Your task to perform on an android device: choose inbox layout in the gmail app Image 0: 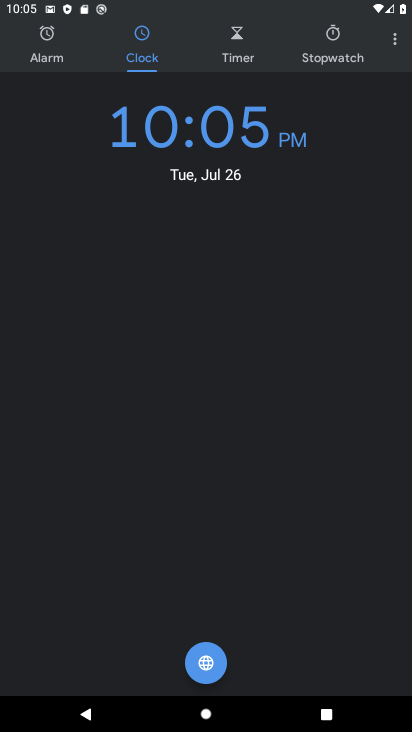
Step 0: press home button
Your task to perform on an android device: choose inbox layout in the gmail app Image 1: 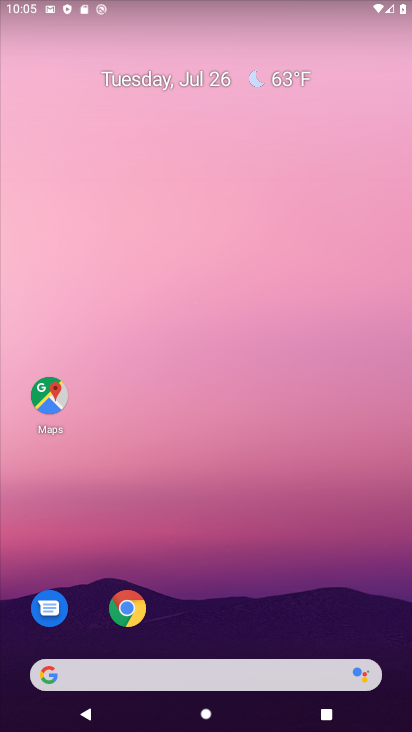
Step 1: press home button
Your task to perform on an android device: choose inbox layout in the gmail app Image 2: 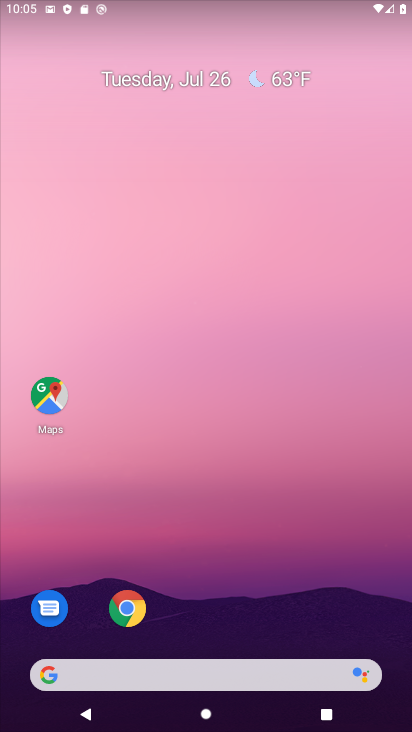
Step 2: drag from (270, 640) to (176, 113)
Your task to perform on an android device: choose inbox layout in the gmail app Image 3: 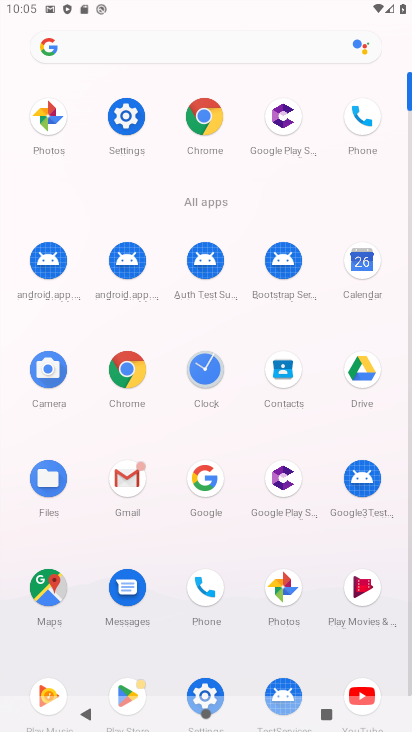
Step 3: click (130, 491)
Your task to perform on an android device: choose inbox layout in the gmail app Image 4: 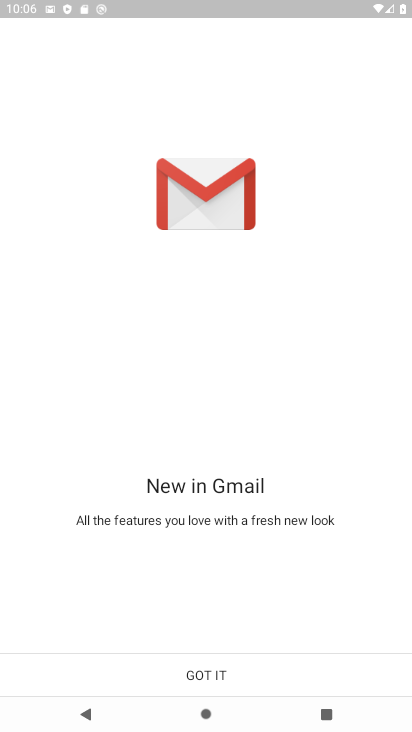
Step 4: click (229, 681)
Your task to perform on an android device: choose inbox layout in the gmail app Image 5: 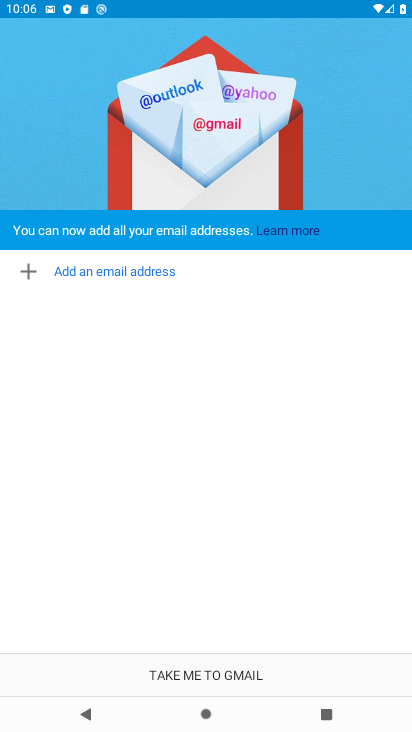
Step 5: click (229, 681)
Your task to perform on an android device: choose inbox layout in the gmail app Image 6: 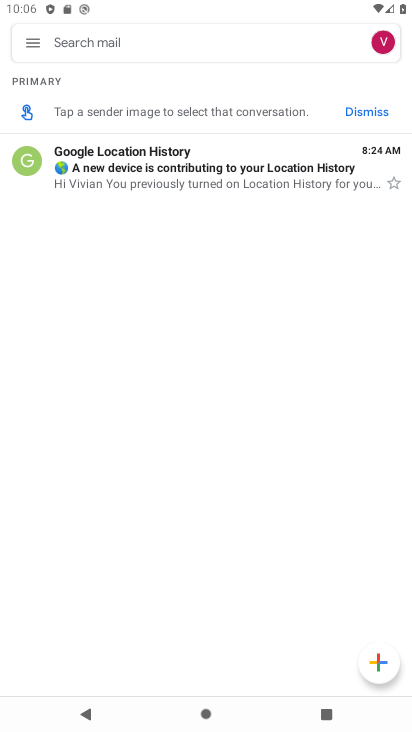
Step 6: click (30, 43)
Your task to perform on an android device: choose inbox layout in the gmail app Image 7: 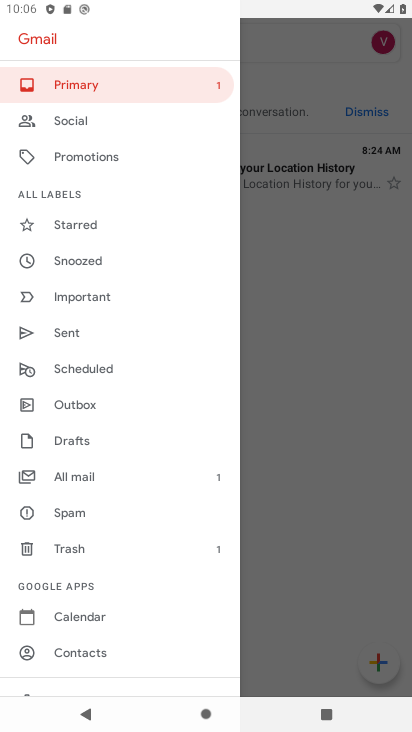
Step 7: drag from (135, 591) to (163, 334)
Your task to perform on an android device: choose inbox layout in the gmail app Image 8: 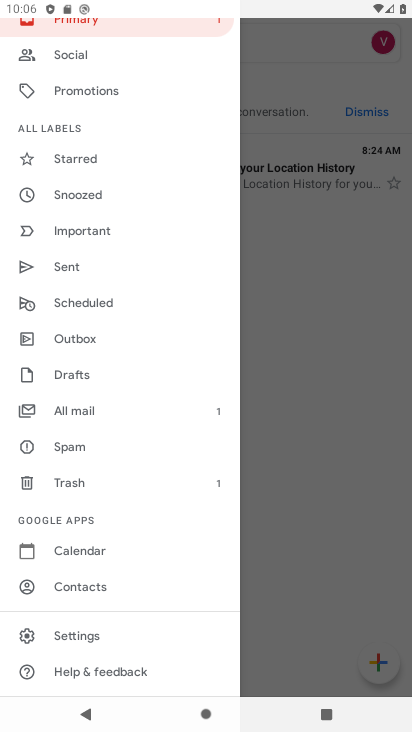
Step 8: click (68, 633)
Your task to perform on an android device: choose inbox layout in the gmail app Image 9: 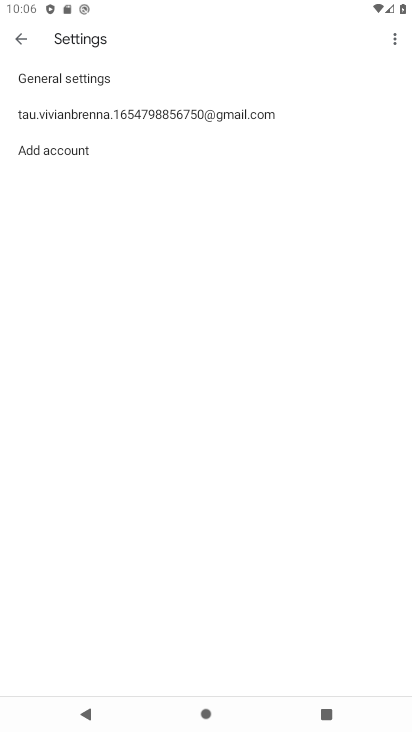
Step 9: click (92, 102)
Your task to perform on an android device: choose inbox layout in the gmail app Image 10: 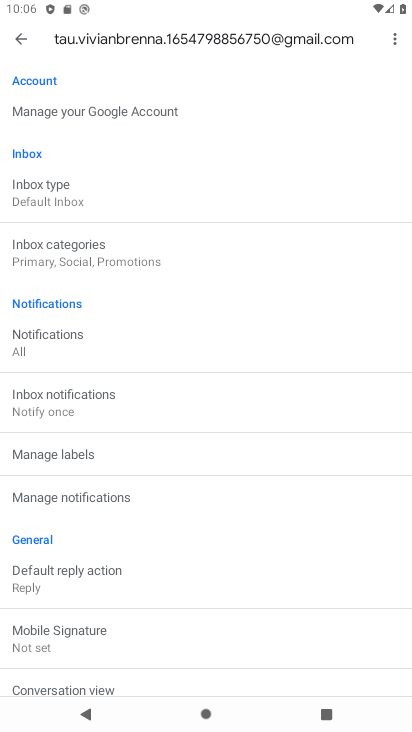
Step 10: click (13, 190)
Your task to perform on an android device: choose inbox layout in the gmail app Image 11: 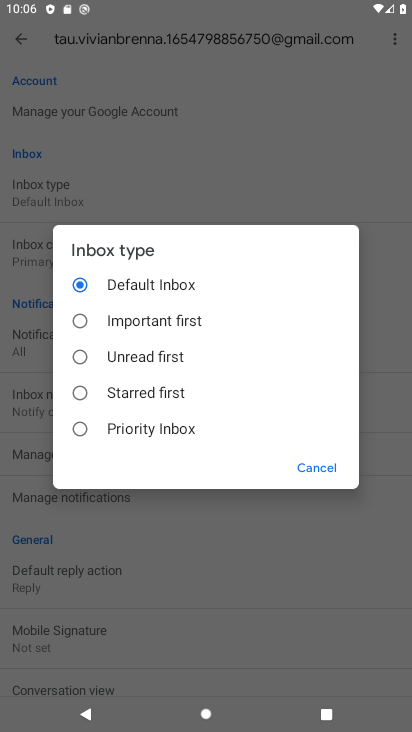
Step 11: click (335, 466)
Your task to perform on an android device: choose inbox layout in the gmail app Image 12: 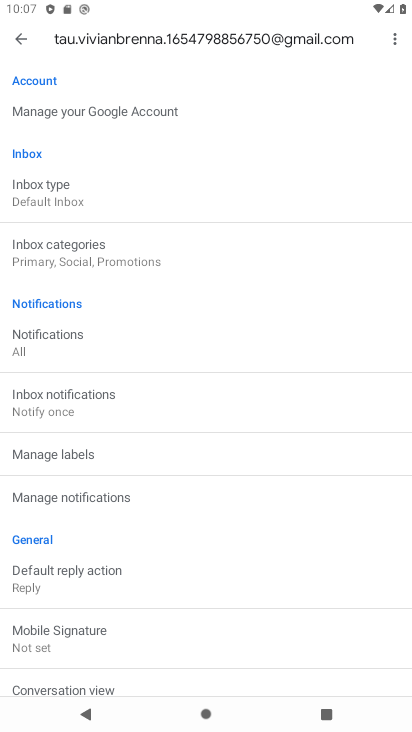
Step 12: task complete